Your task to perform on an android device: open wifi settings Image 0: 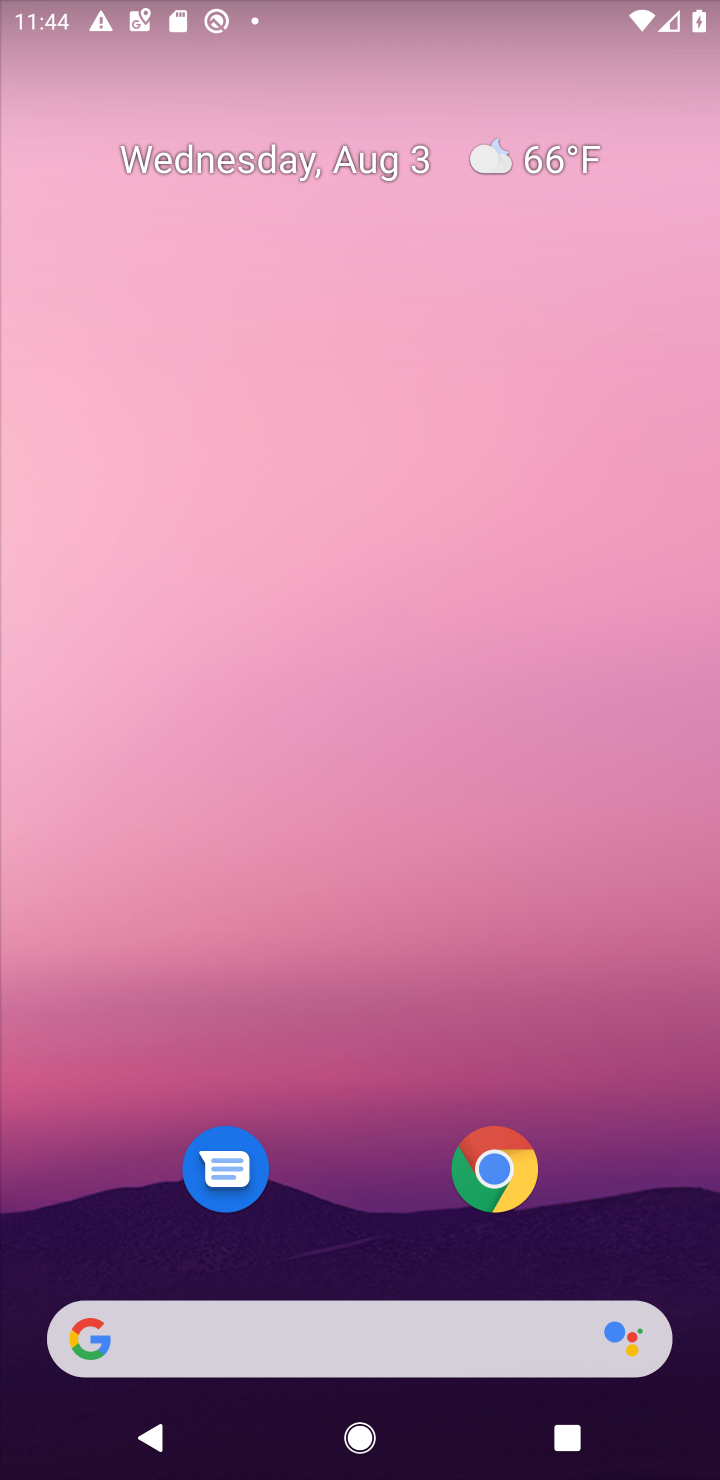
Step 0: drag from (604, 1227) to (549, 0)
Your task to perform on an android device: open wifi settings Image 1: 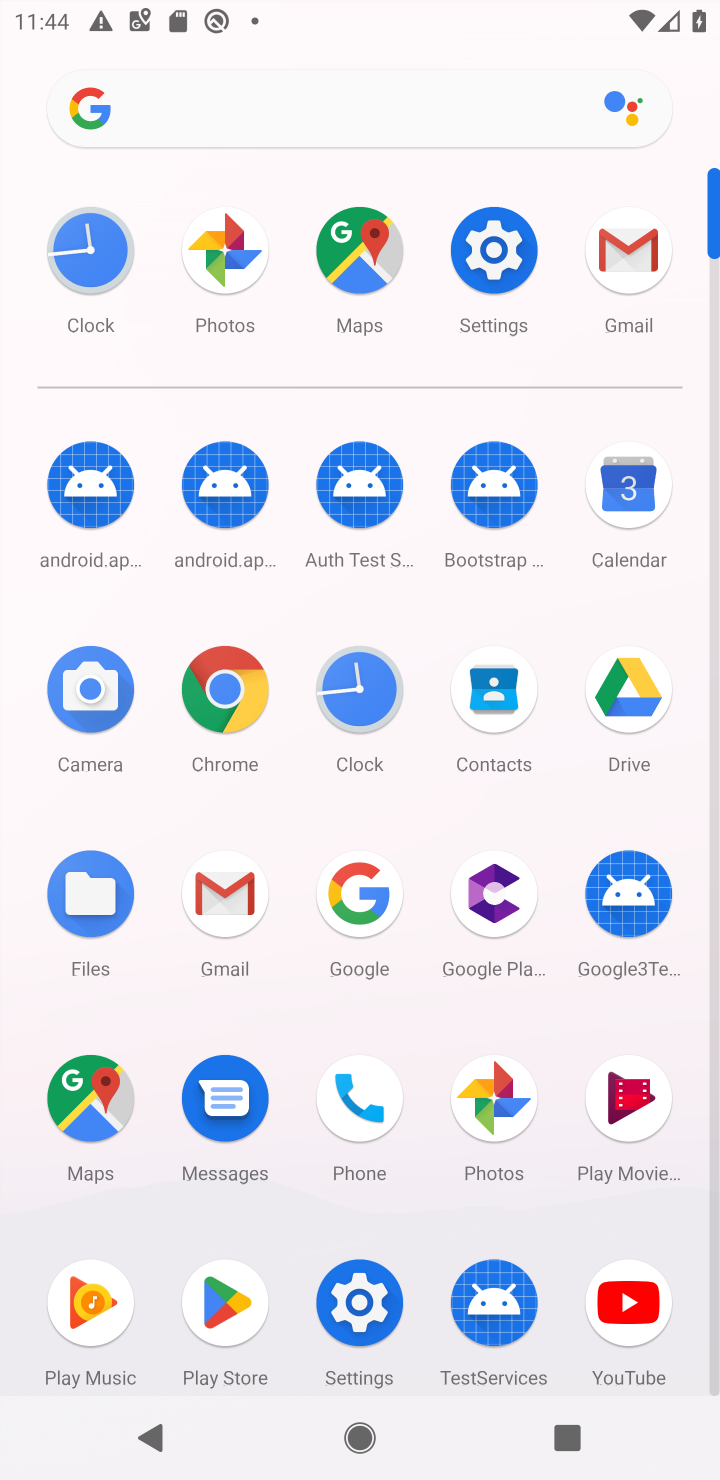
Step 1: click (492, 259)
Your task to perform on an android device: open wifi settings Image 2: 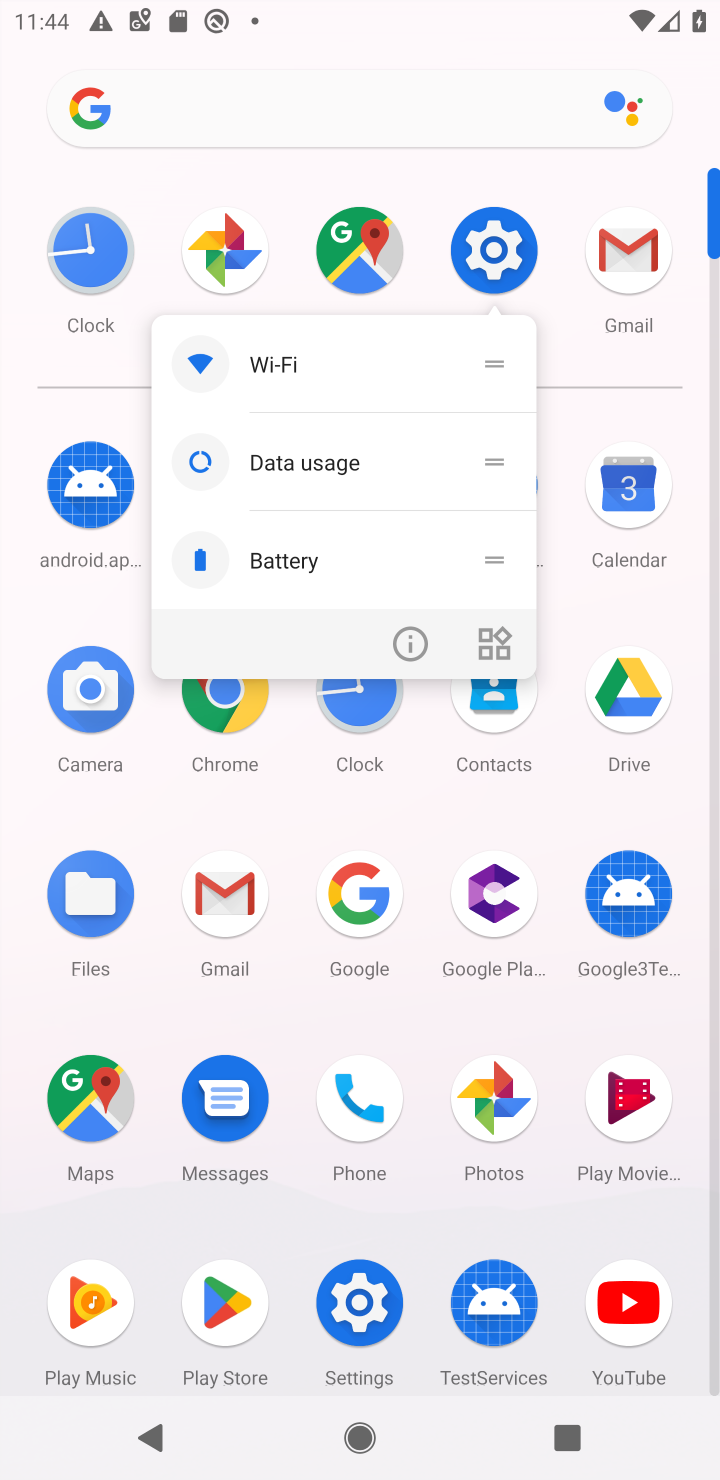
Step 2: click (492, 257)
Your task to perform on an android device: open wifi settings Image 3: 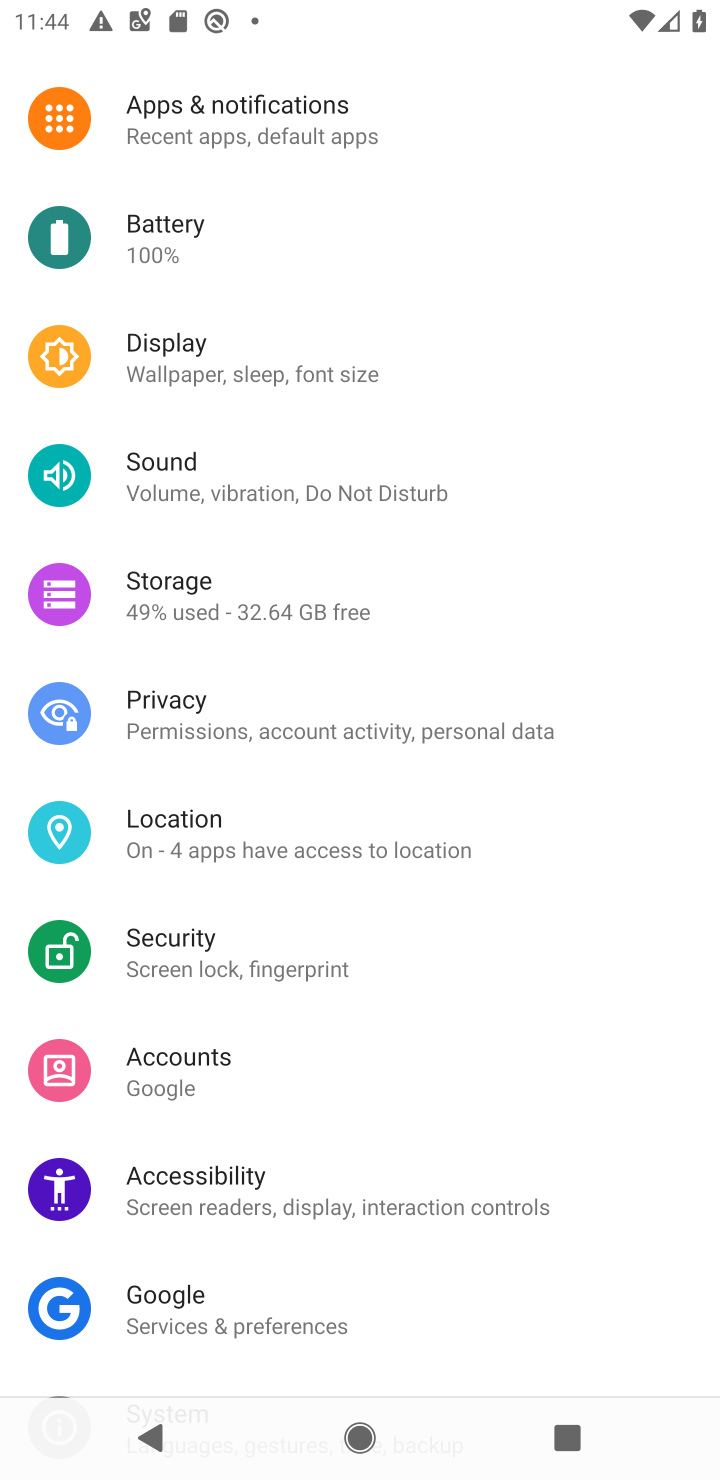
Step 3: drag from (628, 337) to (692, 1059)
Your task to perform on an android device: open wifi settings Image 4: 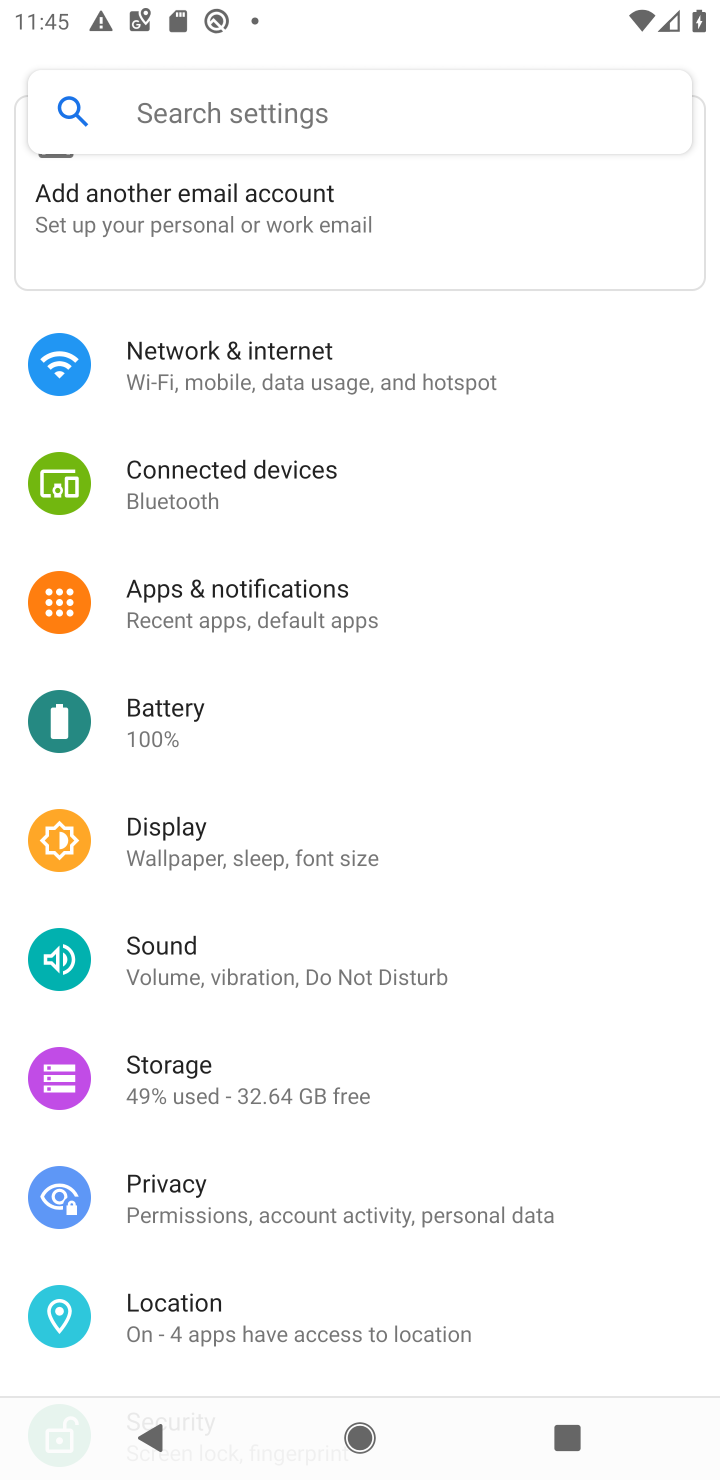
Step 4: click (140, 378)
Your task to perform on an android device: open wifi settings Image 5: 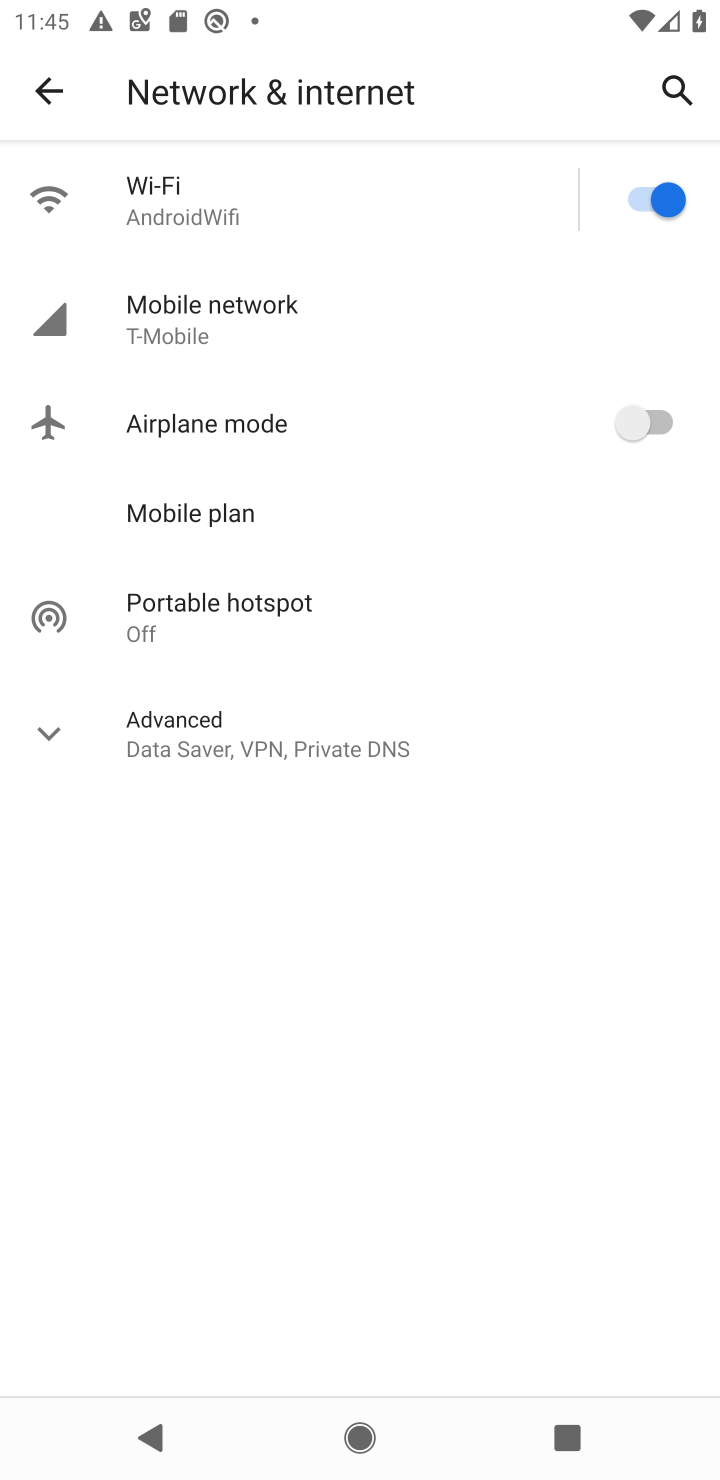
Step 5: click (128, 203)
Your task to perform on an android device: open wifi settings Image 6: 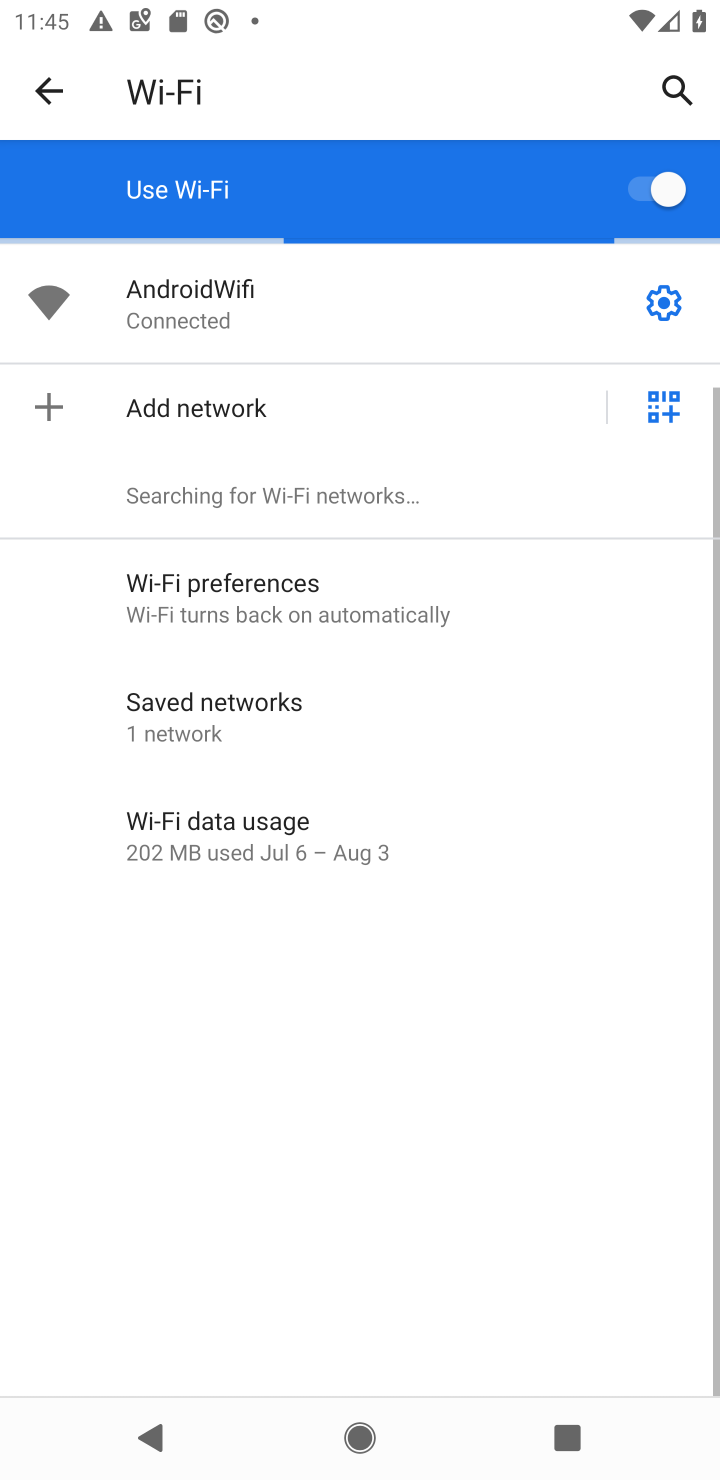
Step 6: task complete